Your task to perform on an android device: check the backup settings in the google photos Image 0: 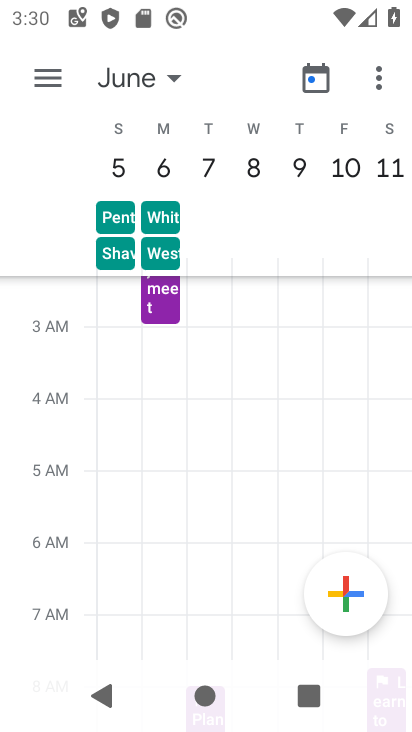
Step 0: press back button
Your task to perform on an android device: check the backup settings in the google photos Image 1: 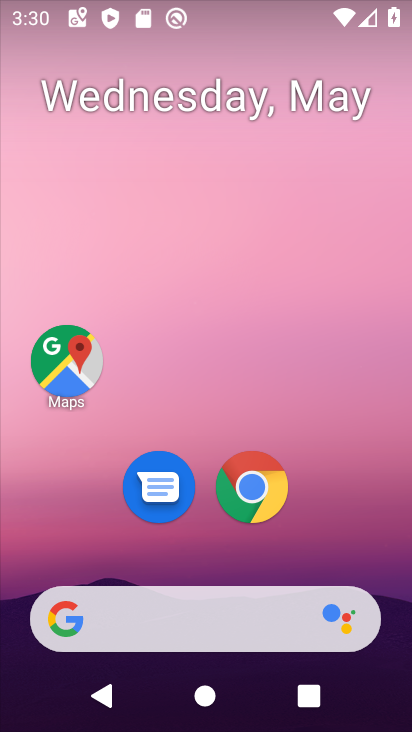
Step 1: drag from (295, 466) to (229, 9)
Your task to perform on an android device: check the backup settings in the google photos Image 2: 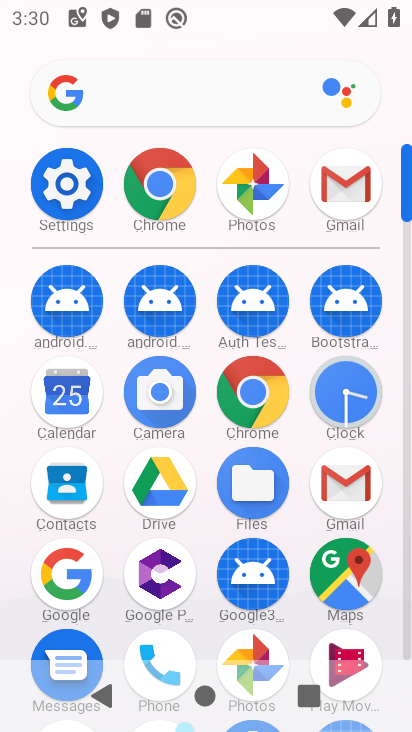
Step 2: drag from (4, 552) to (16, 230)
Your task to perform on an android device: check the backup settings in the google photos Image 3: 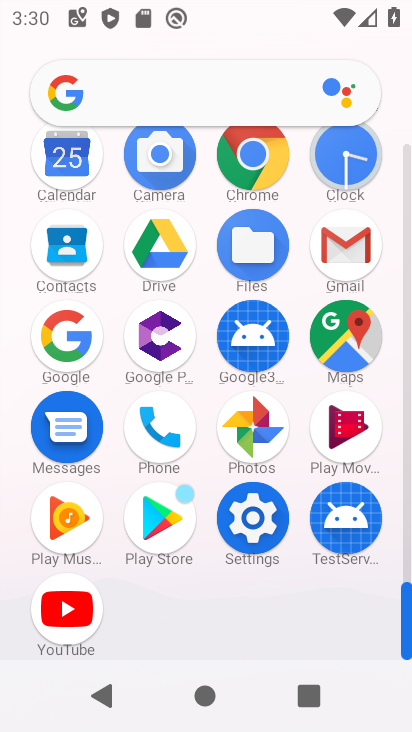
Step 3: click (250, 427)
Your task to perform on an android device: check the backup settings in the google photos Image 4: 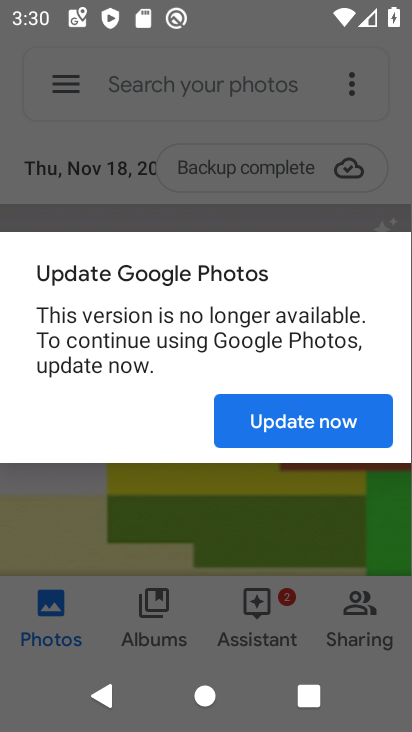
Step 4: click (328, 417)
Your task to perform on an android device: check the backup settings in the google photos Image 5: 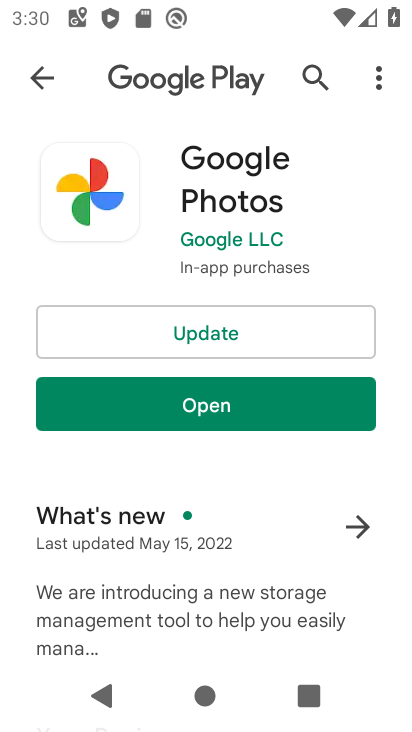
Step 5: click (225, 328)
Your task to perform on an android device: check the backup settings in the google photos Image 6: 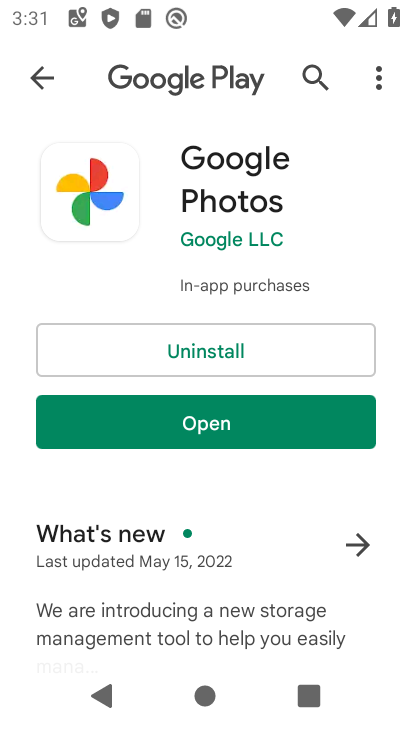
Step 6: click (199, 418)
Your task to perform on an android device: check the backup settings in the google photos Image 7: 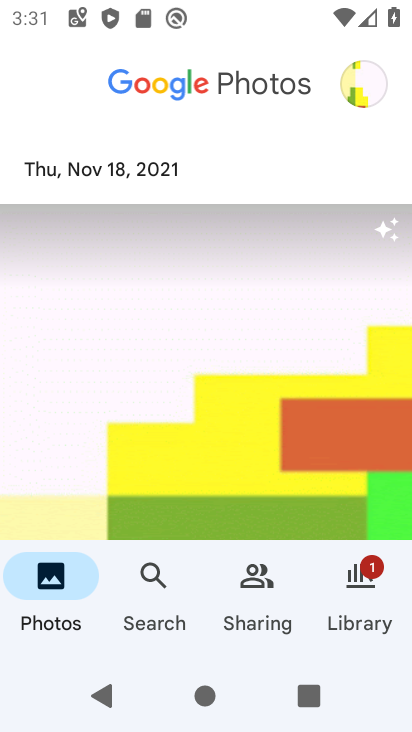
Step 7: click (379, 77)
Your task to perform on an android device: check the backup settings in the google photos Image 8: 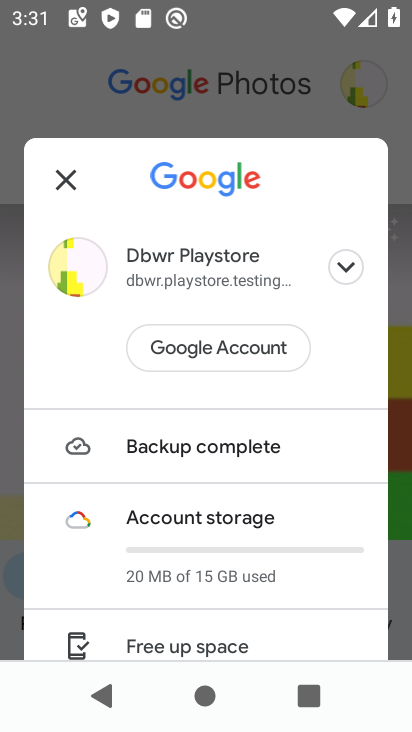
Step 8: drag from (210, 632) to (241, 356)
Your task to perform on an android device: check the backup settings in the google photos Image 9: 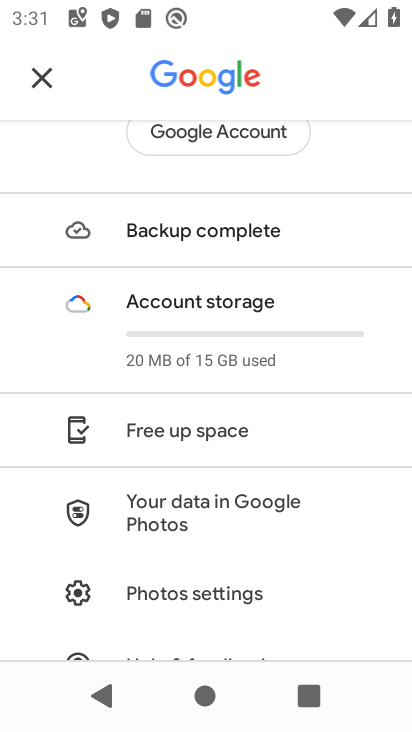
Step 9: click (183, 601)
Your task to perform on an android device: check the backup settings in the google photos Image 10: 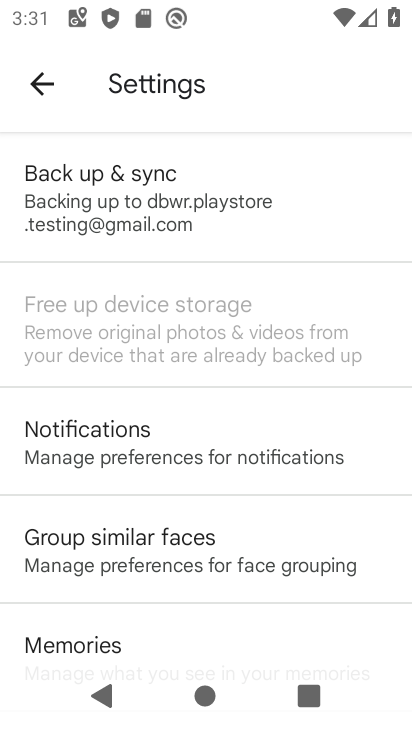
Step 10: drag from (247, 566) to (234, 193)
Your task to perform on an android device: check the backup settings in the google photos Image 11: 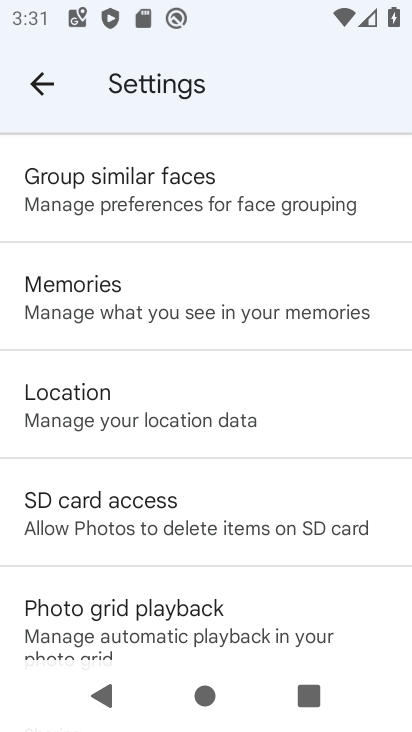
Step 11: drag from (208, 368) to (223, 210)
Your task to perform on an android device: check the backup settings in the google photos Image 12: 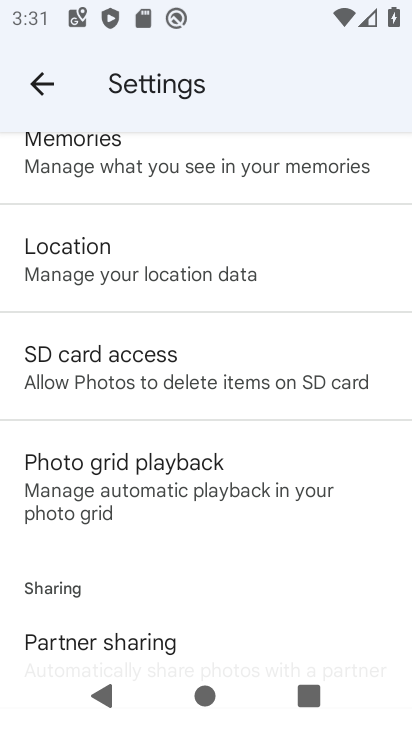
Step 12: drag from (250, 577) to (249, 167)
Your task to perform on an android device: check the backup settings in the google photos Image 13: 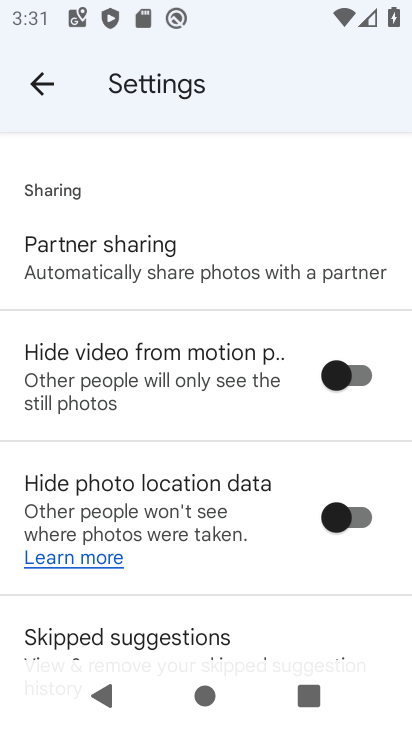
Step 13: drag from (181, 563) to (189, 193)
Your task to perform on an android device: check the backup settings in the google photos Image 14: 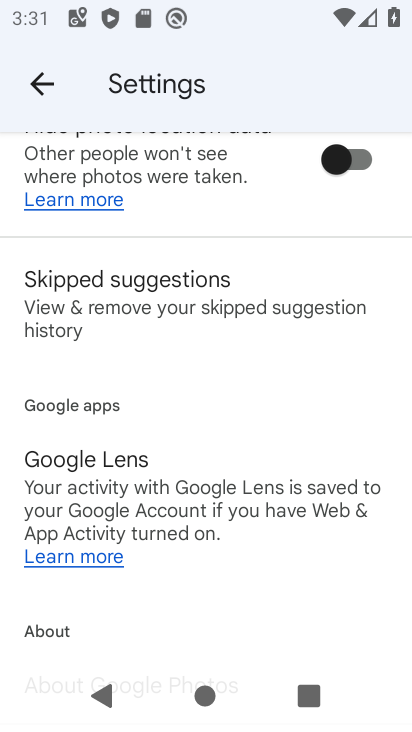
Step 14: drag from (214, 206) to (217, 626)
Your task to perform on an android device: check the backup settings in the google photos Image 15: 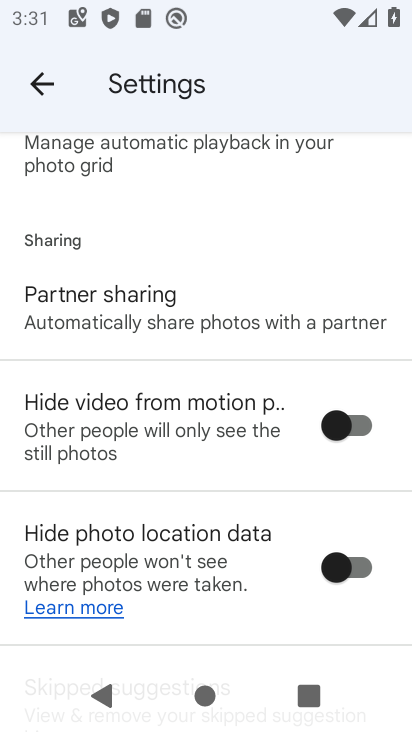
Step 15: drag from (214, 282) to (227, 588)
Your task to perform on an android device: check the backup settings in the google photos Image 16: 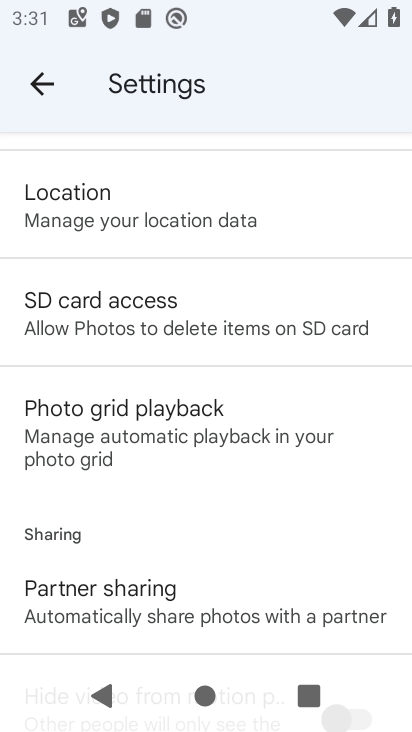
Step 16: drag from (234, 212) to (234, 544)
Your task to perform on an android device: check the backup settings in the google photos Image 17: 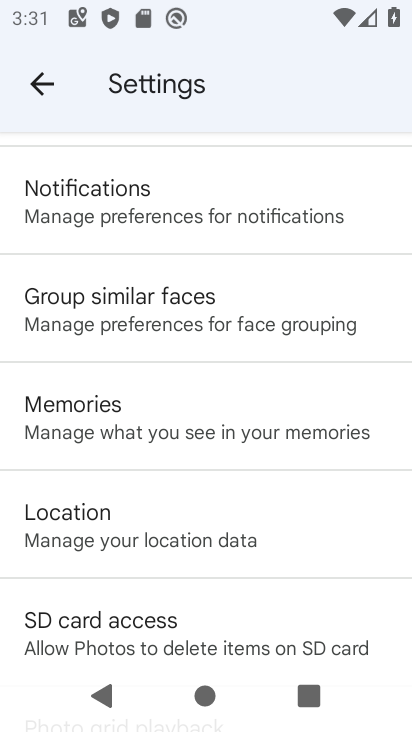
Step 17: drag from (246, 222) to (243, 570)
Your task to perform on an android device: check the backup settings in the google photos Image 18: 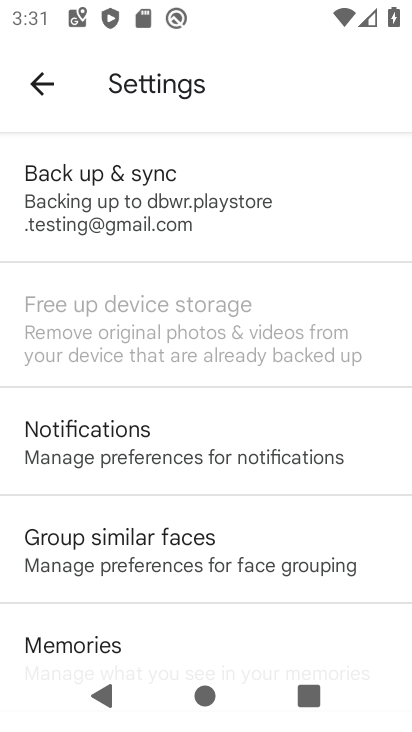
Step 18: click (192, 199)
Your task to perform on an android device: check the backup settings in the google photos Image 19: 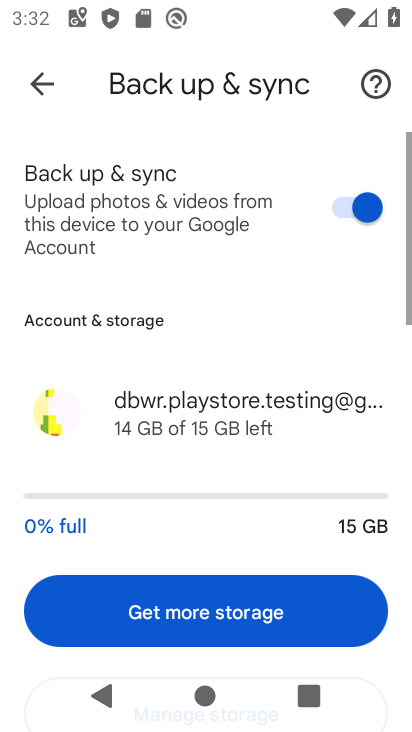
Step 19: task complete